Your task to perform on an android device: create a new album in the google photos Image 0: 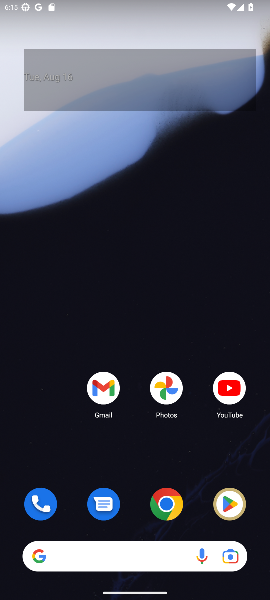
Step 0: click (165, 396)
Your task to perform on an android device: create a new album in the google photos Image 1: 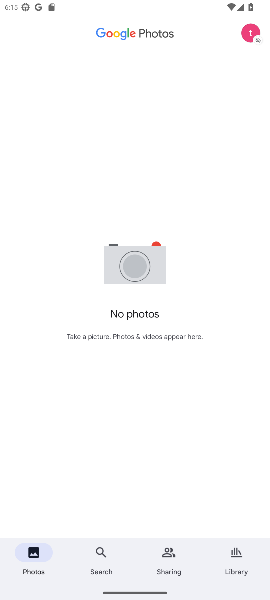
Step 1: task complete